Your task to perform on an android device: turn pop-ups off in chrome Image 0: 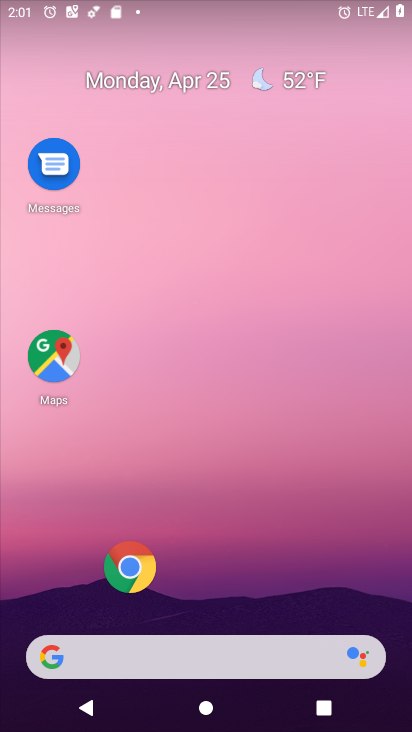
Step 0: drag from (224, 672) to (237, 431)
Your task to perform on an android device: turn pop-ups off in chrome Image 1: 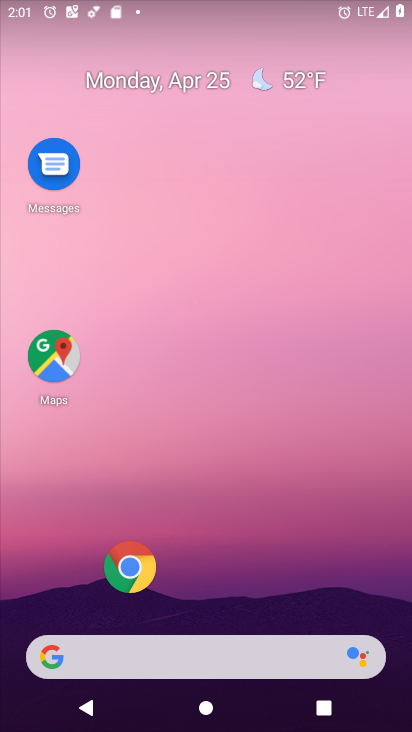
Step 1: click (110, 575)
Your task to perform on an android device: turn pop-ups off in chrome Image 2: 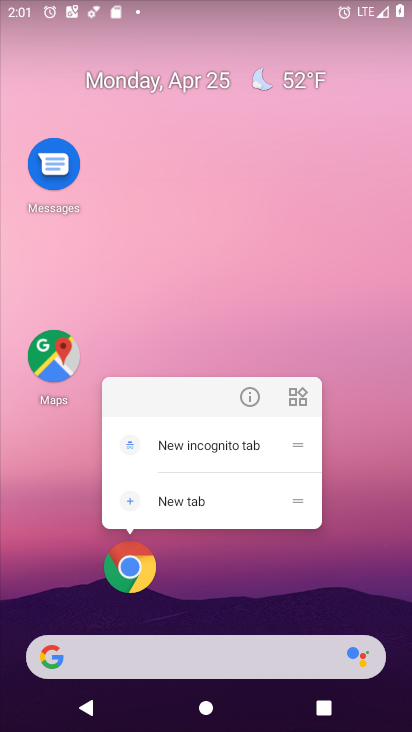
Step 2: click (137, 590)
Your task to perform on an android device: turn pop-ups off in chrome Image 3: 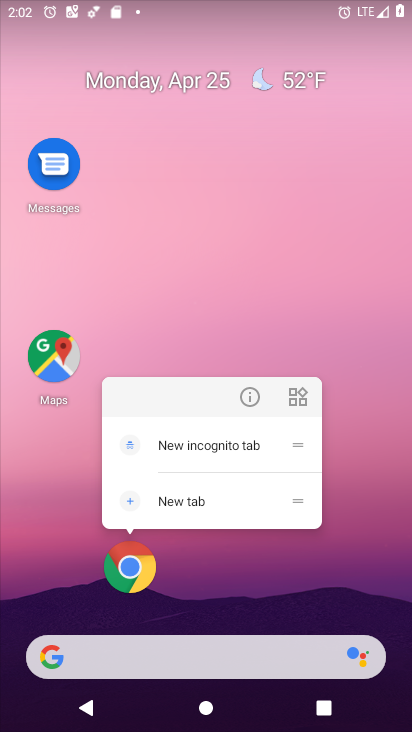
Step 3: click (127, 578)
Your task to perform on an android device: turn pop-ups off in chrome Image 4: 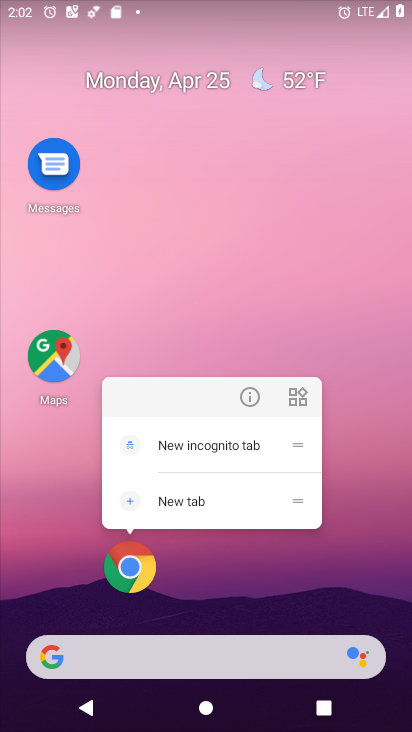
Step 4: click (137, 573)
Your task to perform on an android device: turn pop-ups off in chrome Image 5: 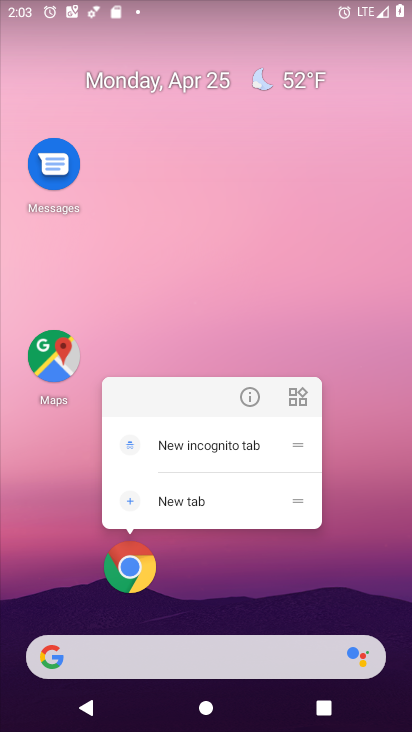
Step 5: click (126, 576)
Your task to perform on an android device: turn pop-ups off in chrome Image 6: 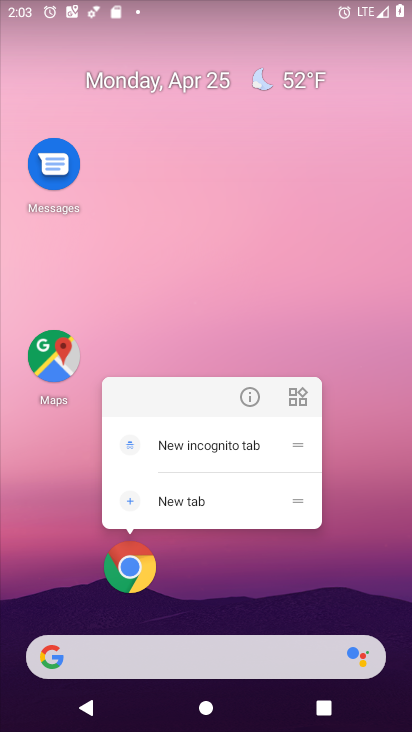
Step 6: click (126, 576)
Your task to perform on an android device: turn pop-ups off in chrome Image 7: 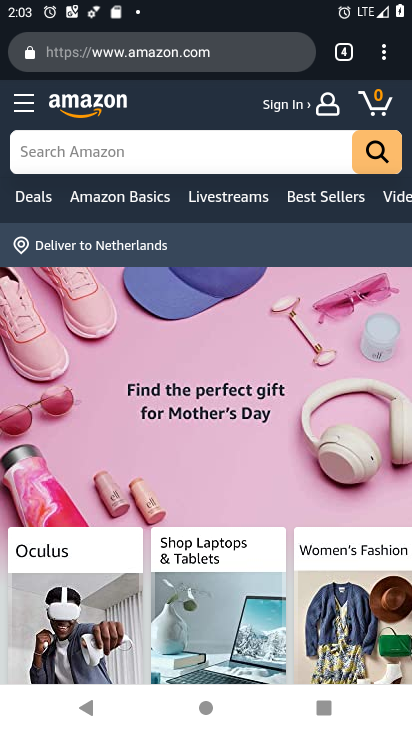
Step 7: click (376, 55)
Your task to perform on an android device: turn pop-ups off in chrome Image 8: 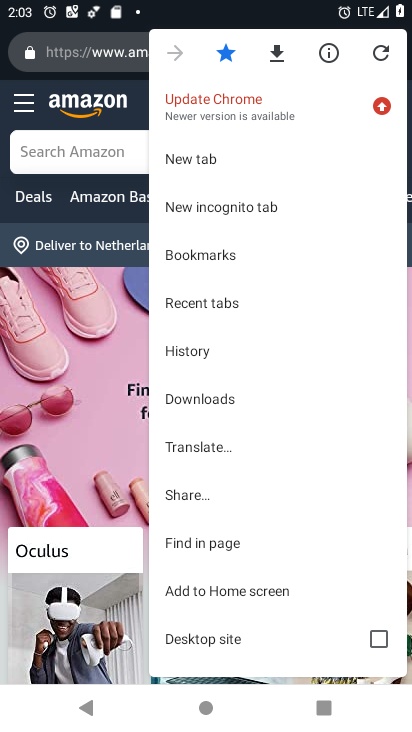
Step 8: drag from (222, 640) to (280, 234)
Your task to perform on an android device: turn pop-ups off in chrome Image 9: 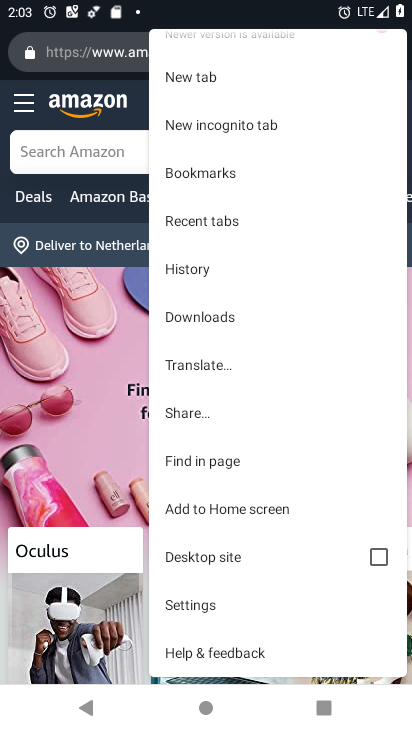
Step 9: click (224, 609)
Your task to perform on an android device: turn pop-ups off in chrome Image 10: 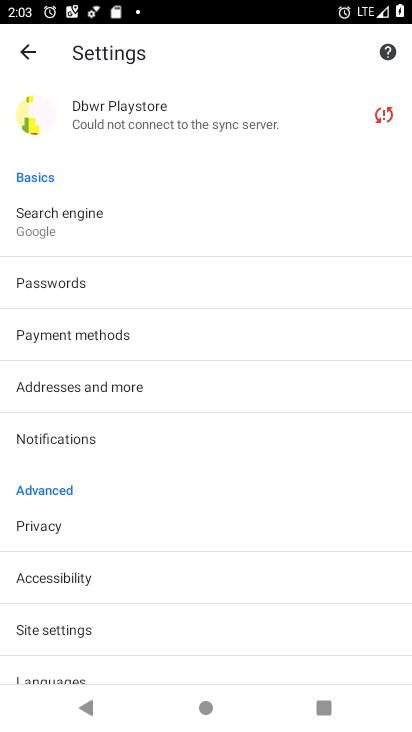
Step 10: click (53, 628)
Your task to perform on an android device: turn pop-ups off in chrome Image 11: 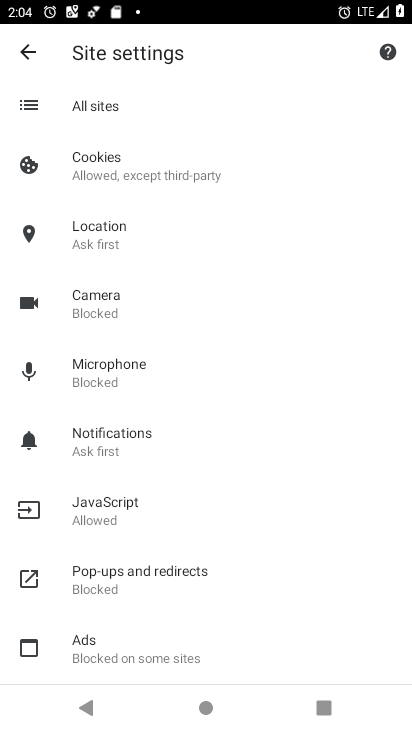
Step 11: click (140, 585)
Your task to perform on an android device: turn pop-ups off in chrome Image 12: 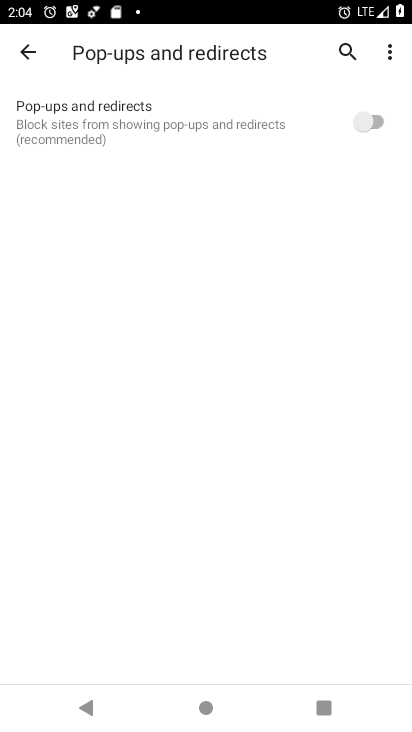
Step 12: task complete